Your task to perform on an android device: Turn on the flashlight Image 0: 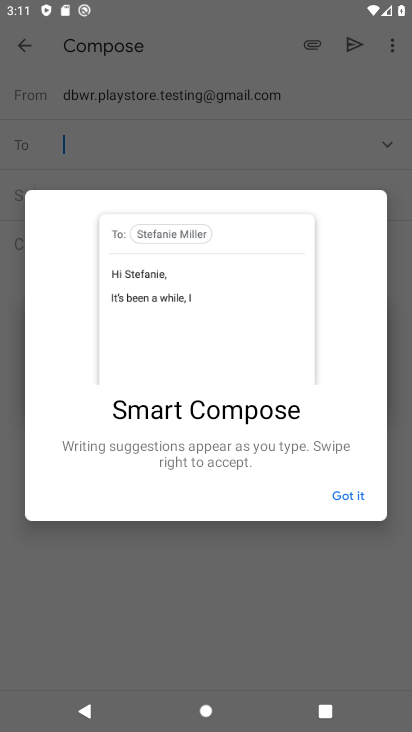
Step 0: drag from (371, 11) to (316, 526)
Your task to perform on an android device: Turn on the flashlight Image 1: 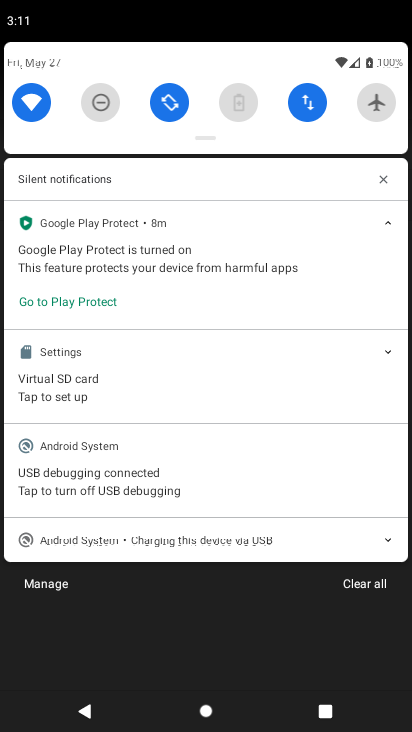
Step 1: drag from (206, 131) to (165, 660)
Your task to perform on an android device: Turn on the flashlight Image 2: 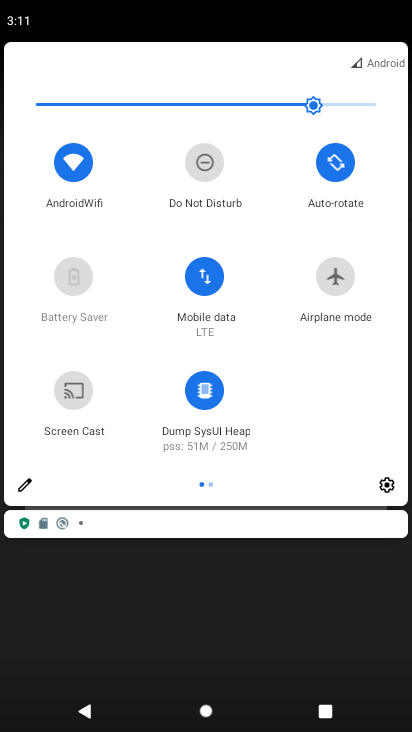
Step 2: click (23, 478)
Your task to perform on an android device: Turn on the flashlight Image 3: 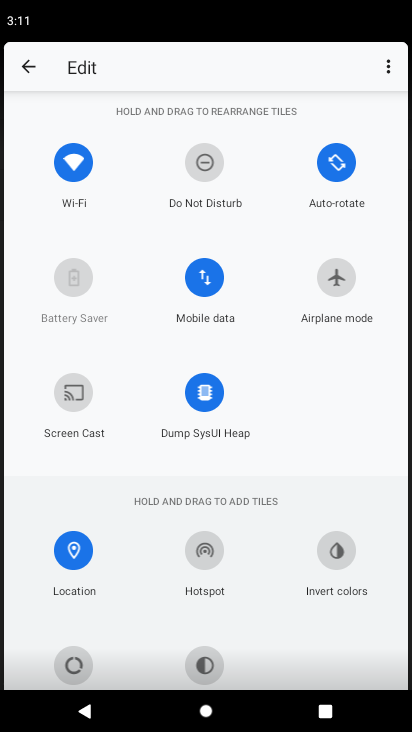
Step 3: task complete